Your task to perform on an android device: Search for pizza restaurants on Maps Image 0: 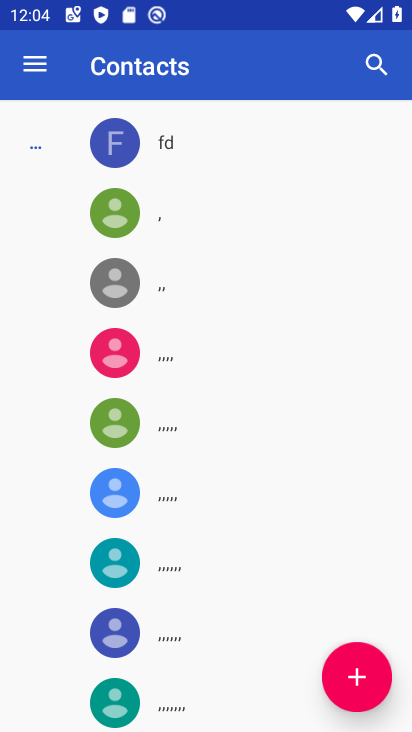
Step 0: press home button
Your task to perform on an android device: Search for pizza restaurants on Maps Image 1: 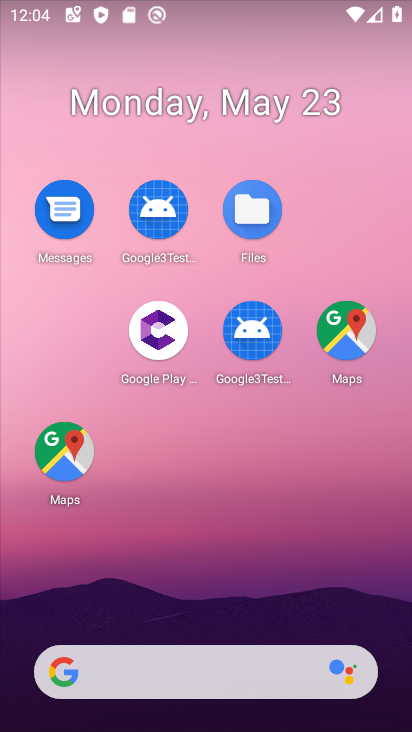
Step 1: drag from (180, 612) to (154, 126)
Your task to perform on an android device: Search for pizza restaurants on Maps Image 2: 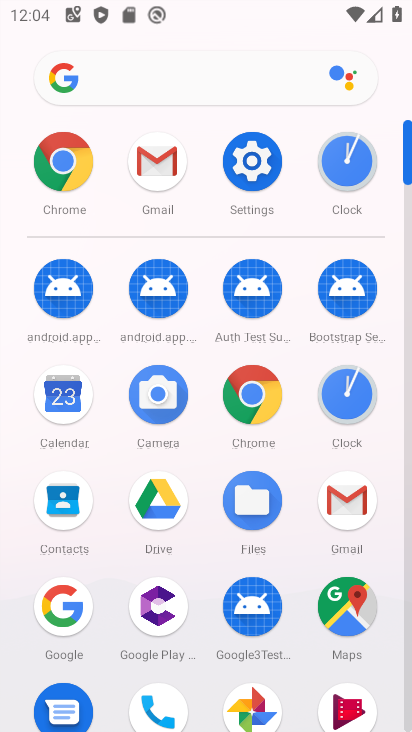
Step 2: click (343, 615)
Your task to perform on an android device: Search for pizza restaurants on Maps Image 3: 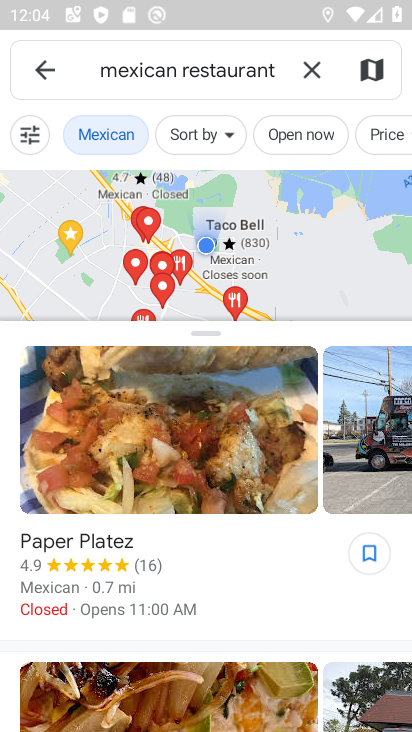
Step 3: click (317, 69)
Your task to perform on an android device: Search for pizza restaurants on Maps Image 4: 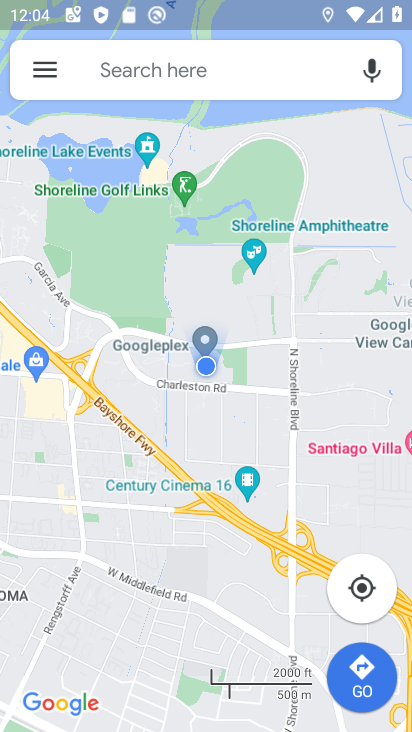
Step 4: click (317, 69)
Your task to perform on an android device: Search for pizza restaurants on Maps Image 5: 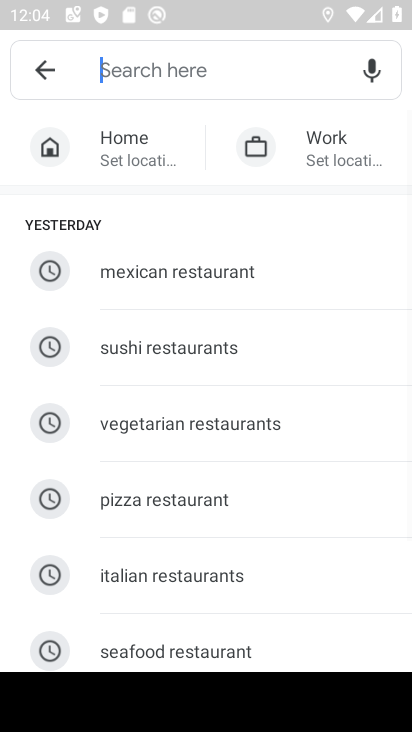
Step 5: click (218, 486)
Your task to perform on an android device: Search for pizza restaurants on Maps Image 6: 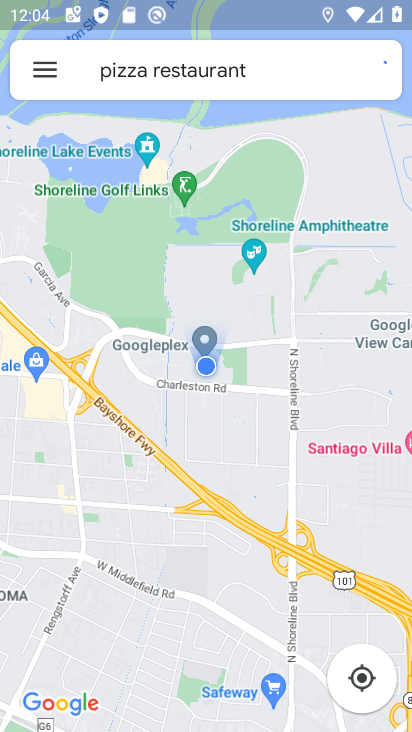
Step 6: task complete